Your task to perform on an android device: toggle sleep mode Image 0: 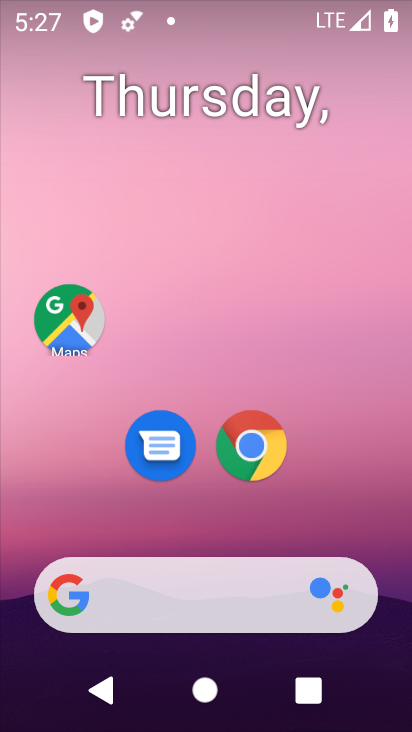
Step 0: drag from (302, 487) to (288, 71)
Your task to perform on an android device: toggle sleep mode Image 1: 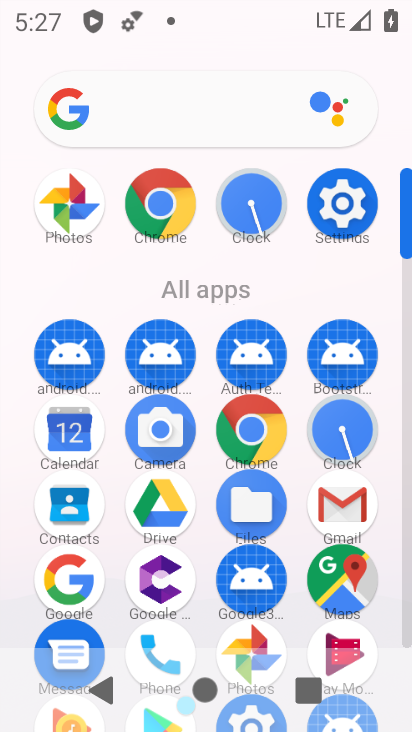
Step 1: click (333, 194)
Your task to perform on an android device: toggle sleep mode Image 2: 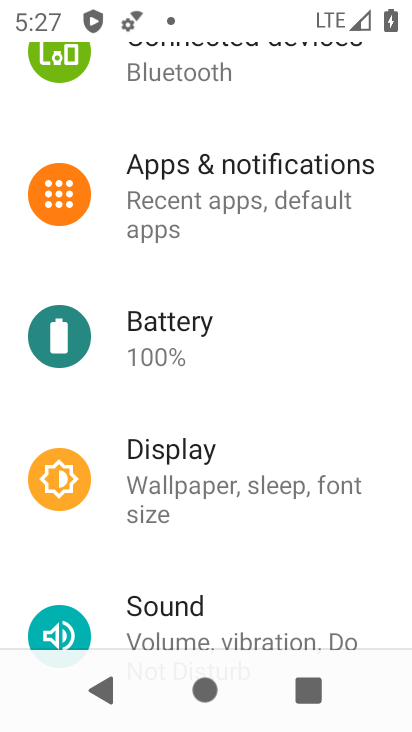
Step 2: task complete